Your task to perform on an android device: Go to network settings Image 0: 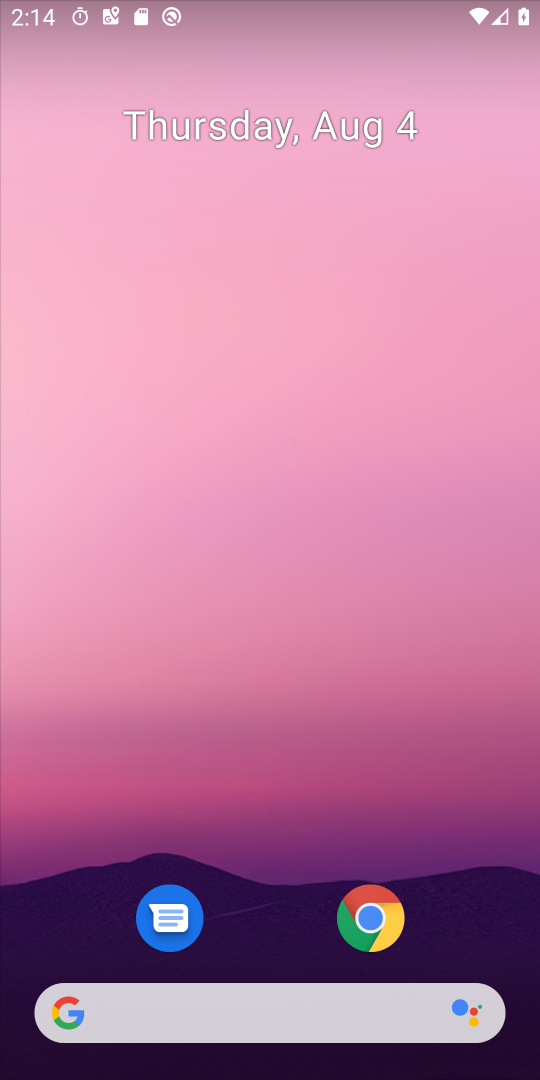
Step 0: drag from (252, 963) to (254, 407)
Your task to perform on an android device: Go to network settings Image 1: 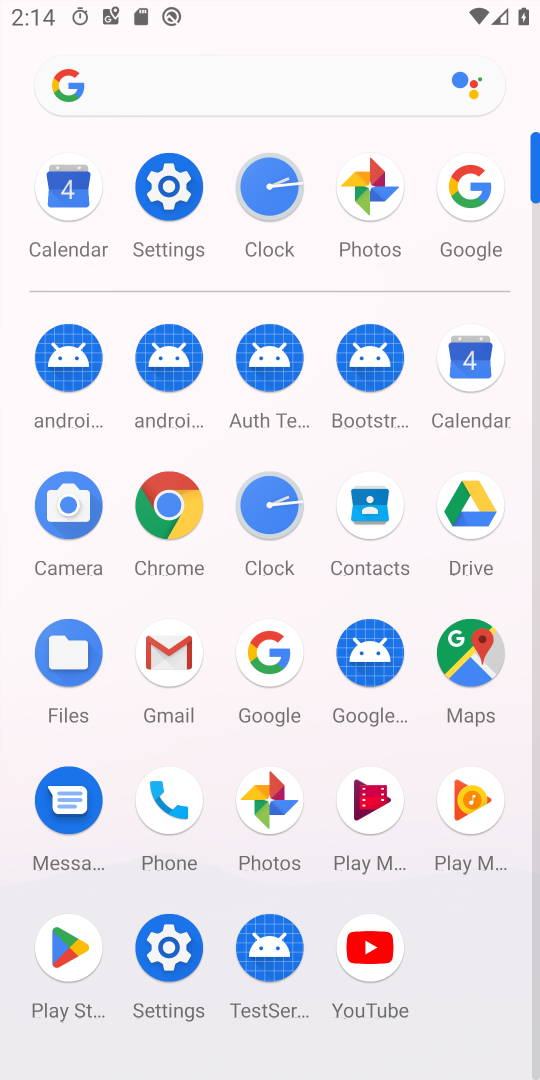
Step 1: click (178, 213)
Your task to perform on an android device: Go to network settings Image 2: 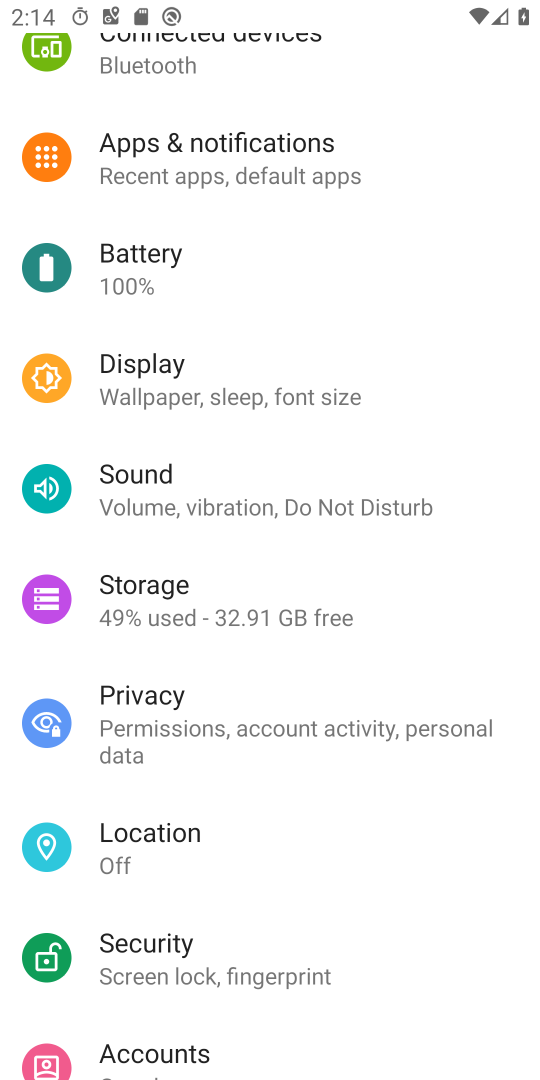
Step 2: drag from (240, 157) to (302, 641)
Your task to perform on an android device: Go to network settings Image 3: 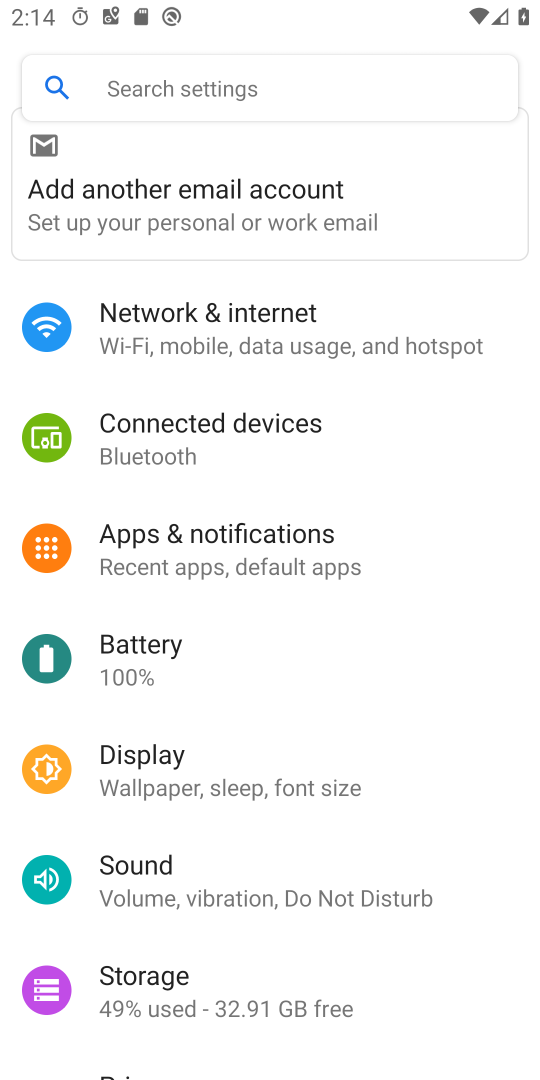
Step 3: click (263, 315)
Your task to perform on an android device: Go to network settings Image 4: 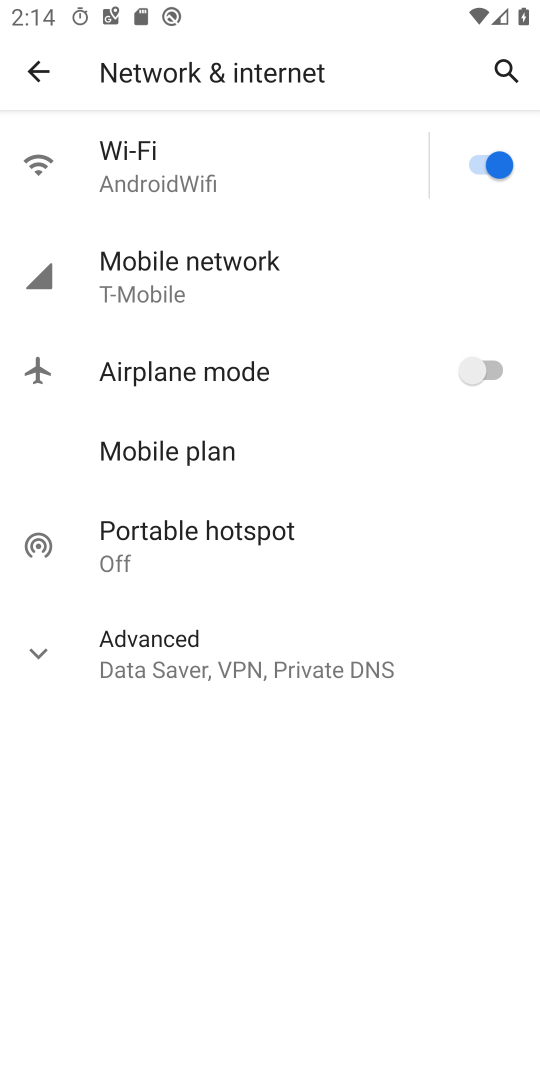
Step 4: task complete